Your task to perform on an android device: open sync settings in chrome Image 0: 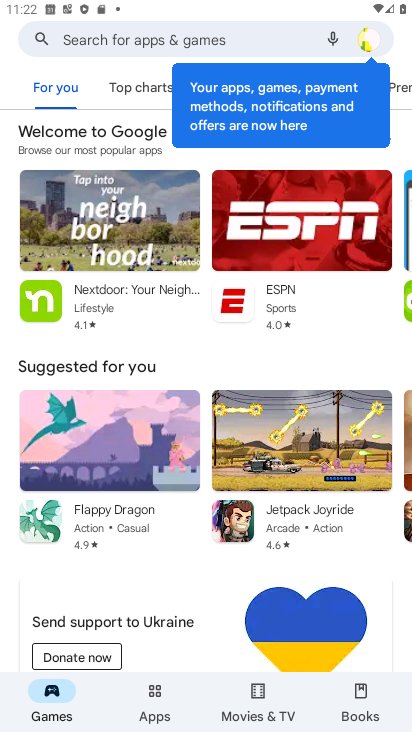
Step 0: press home button
Your task to perform on an android device: open sync settings in chrome Image 1: 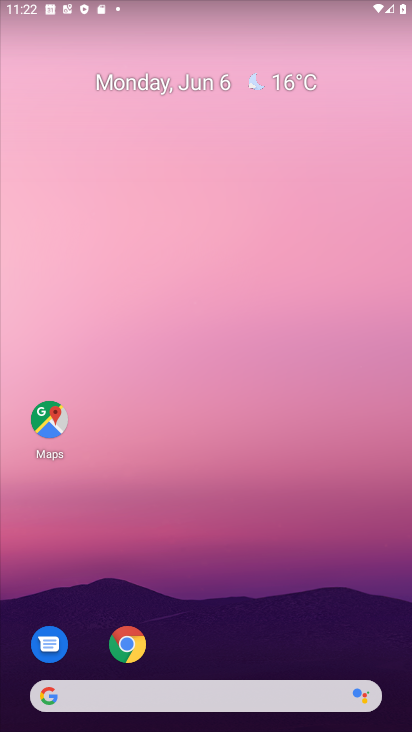
Step 1: drag from (234, 558) to (223, 212)
Your task to perform on an android device: open sync settings in chrome Image 2: 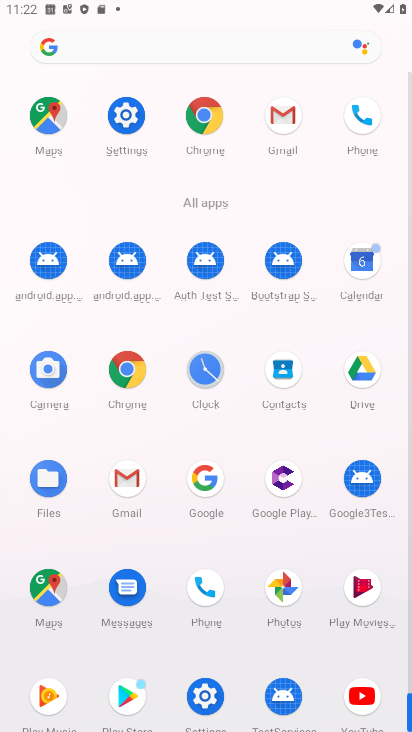
Step 2: drag from (171, 189) to (153, 63)
Your task to perform on an android device: open sync settings in chrome Image 3: 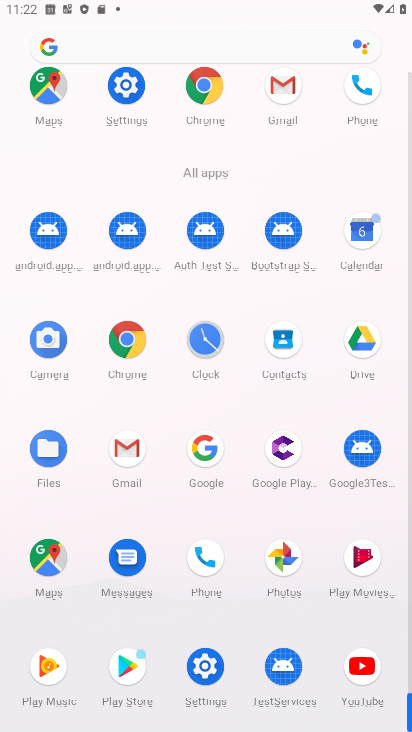
Step 3: click (137, 348)
Your task to perform on an android device: open sync settings in chrome Image 4: 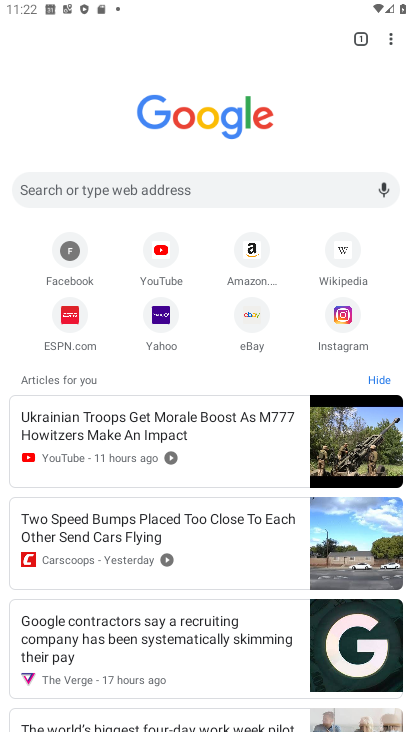
Step 4: click (388, 39)
Your task to perform on an android device: open sync settings in chrome Image 5: 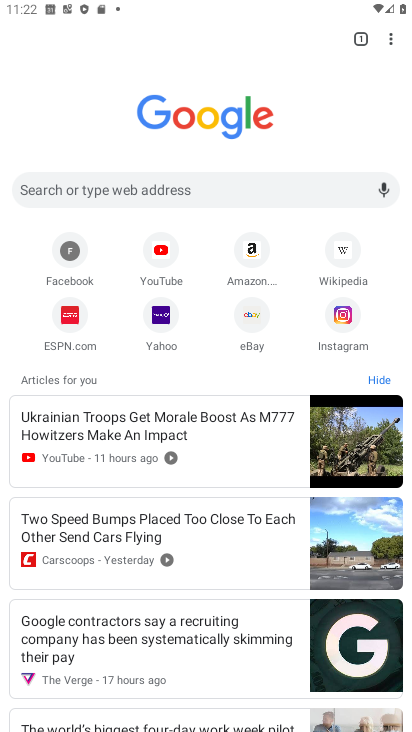
Step 5: click (393, 42)
Your task to perform on an android device: open sync settings in chrome Image 6: 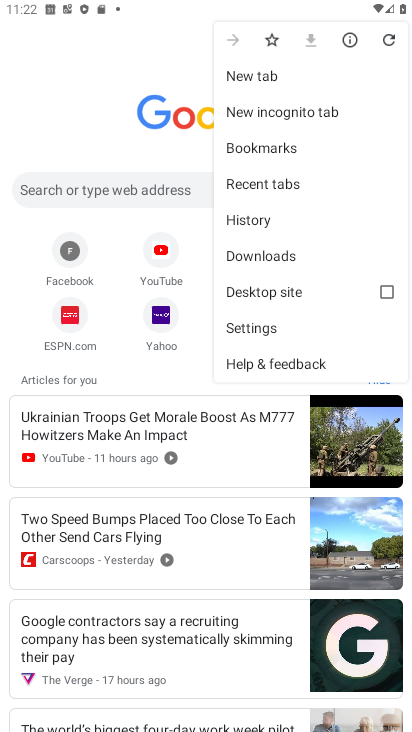
Step 6: click (263, 328)
Your task to perform on an android device: open sync settings in chrome Image 7: 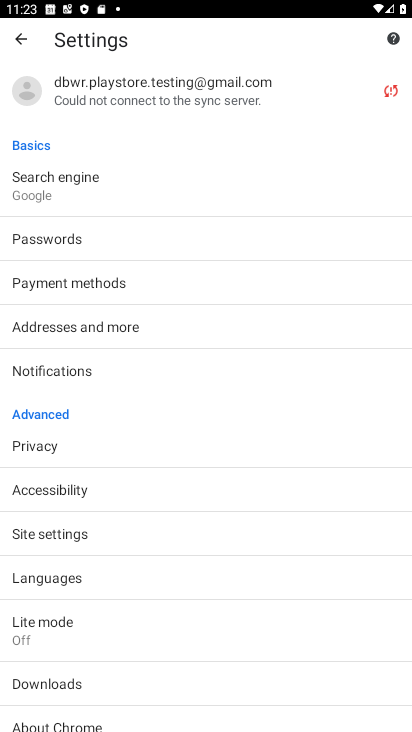
Step 7: click (146, 97)
Your task to perform on an android device: open sync settings in chrome Image 8: 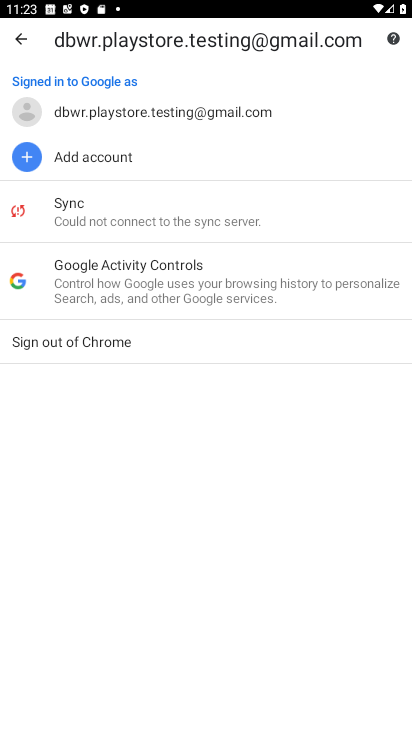
Step 8: click (147, 206)
Your task to perform on an android device: open sync settings in chrome Image 9: 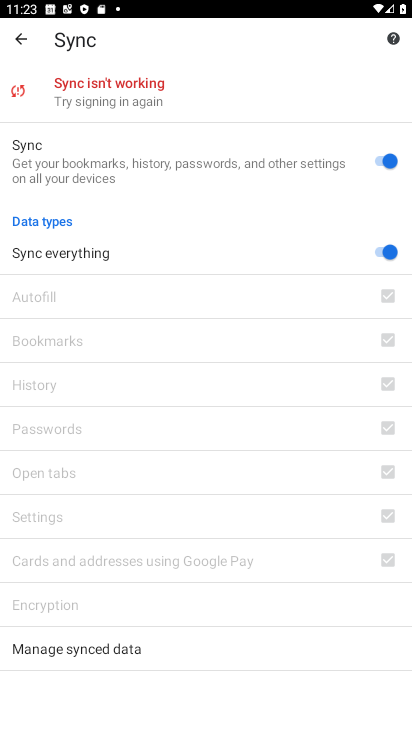
Step 9: task complete